Your task to perform on an android device: make emails show in primary in the gmail app Image 0: 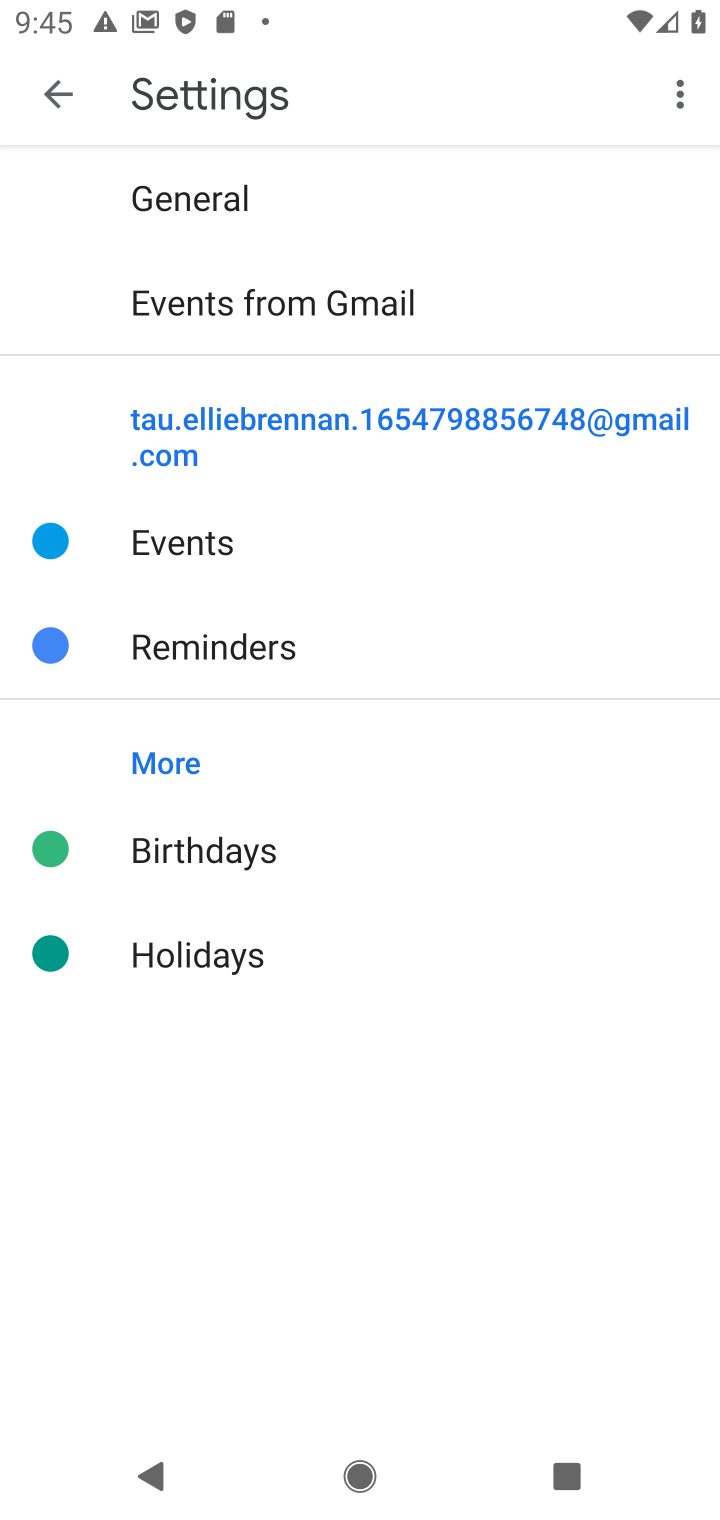
Step 0: press back button
Your task to perform on an android device: make emails show in primary in the gmail app Image 1: 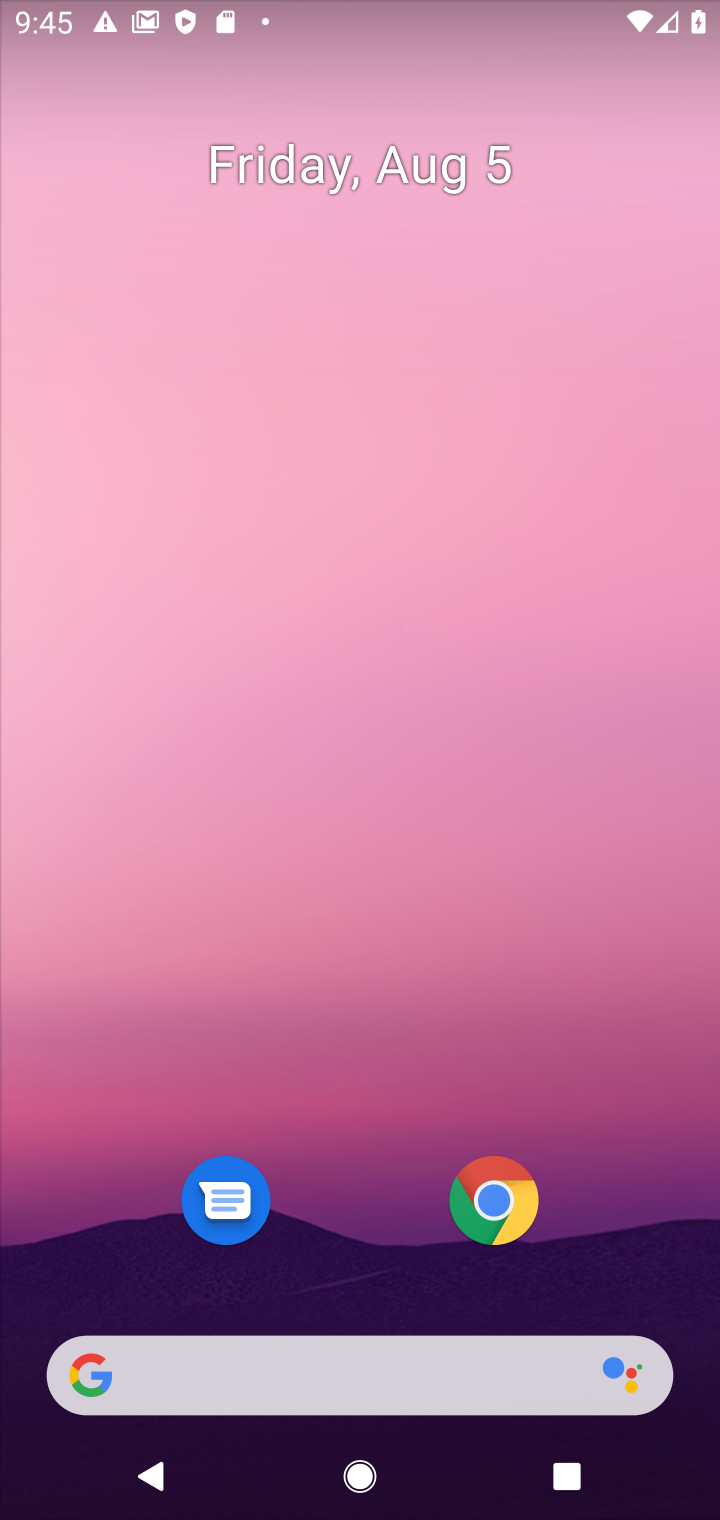
Step 1: drag from (379, 1182) to (362, 12)
Your task to perform on an android device: make emails show in primary in the gmail app Image 2: 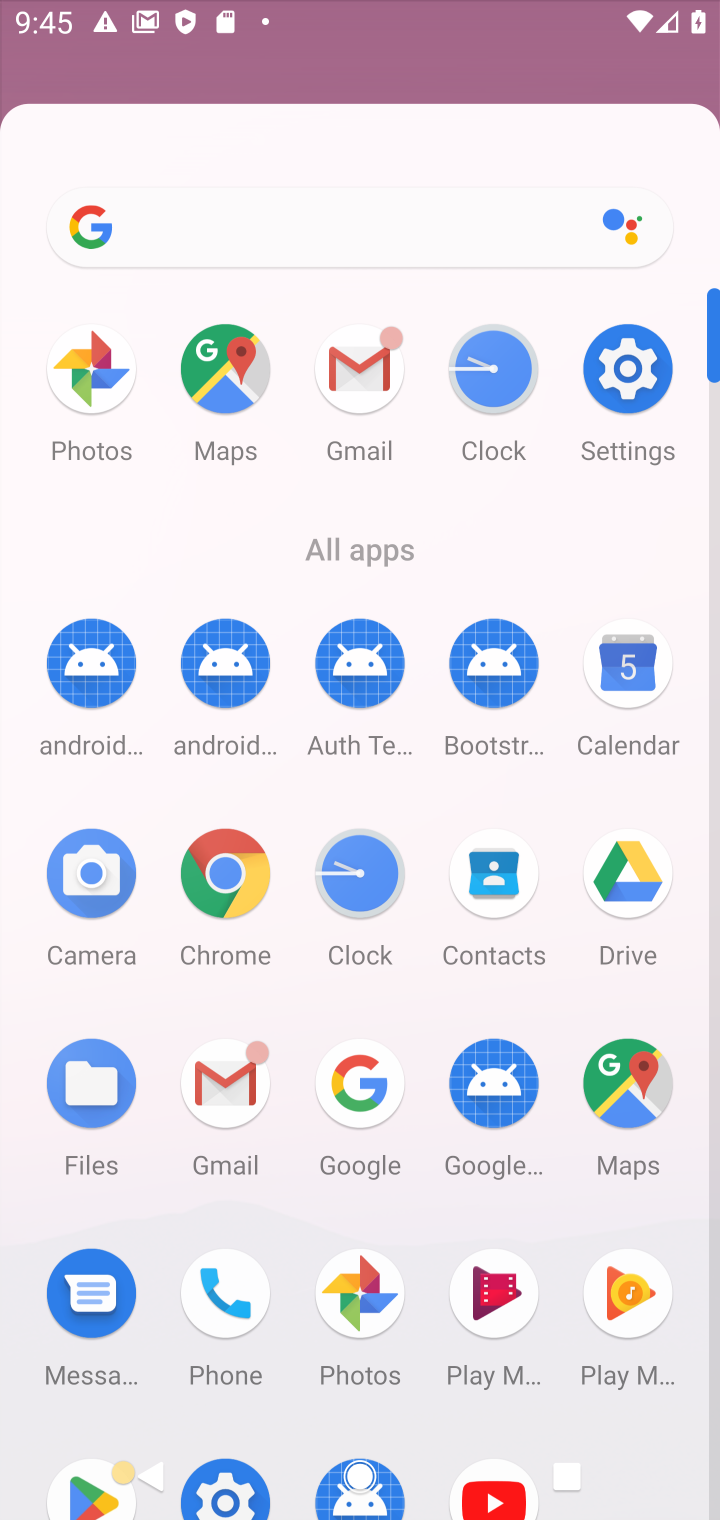
Step 2: click (371, 367)
Your task to perform on an android device: make emails show in primary in the gmail app Image 3: 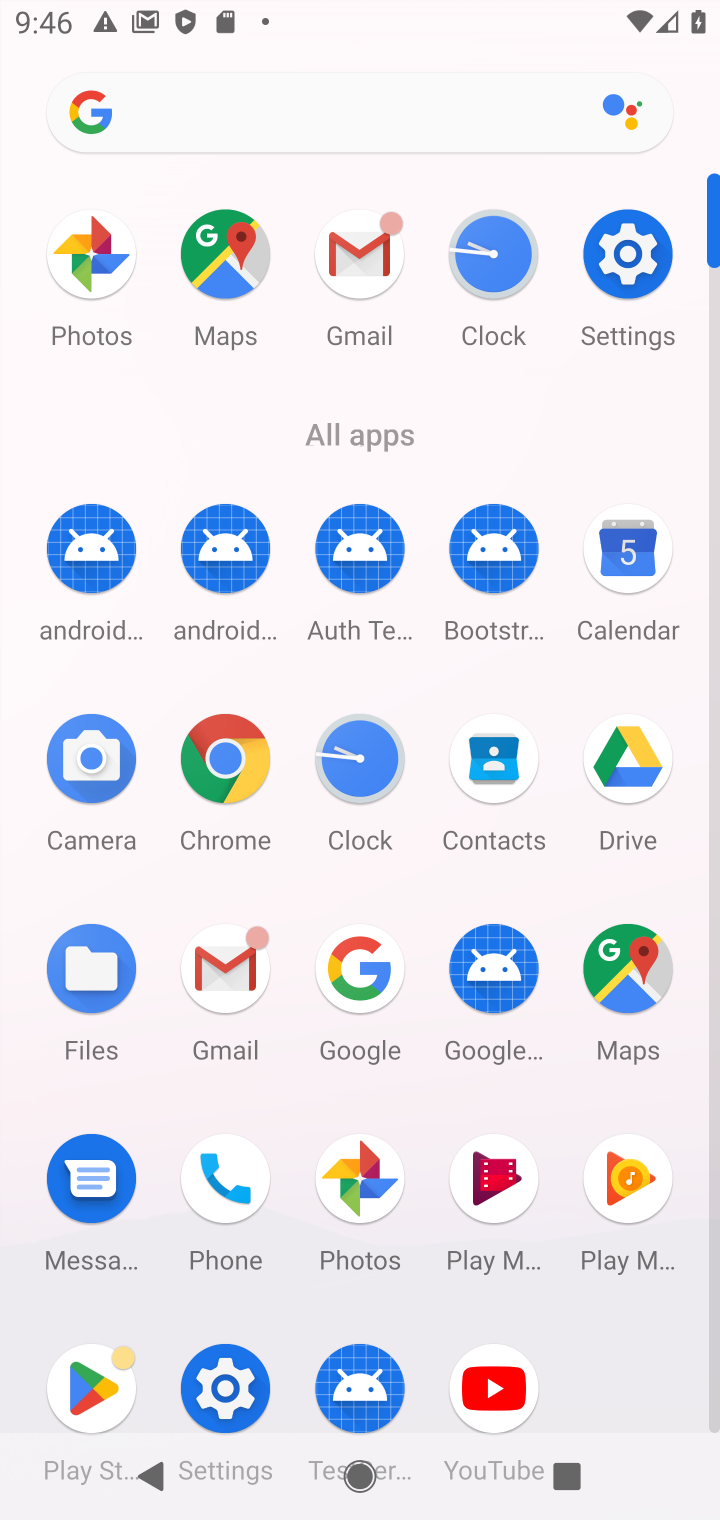
Step 3: click (367, 253)
Your task to perform on an android device: make emails show in primary in the gmail app Image 4: 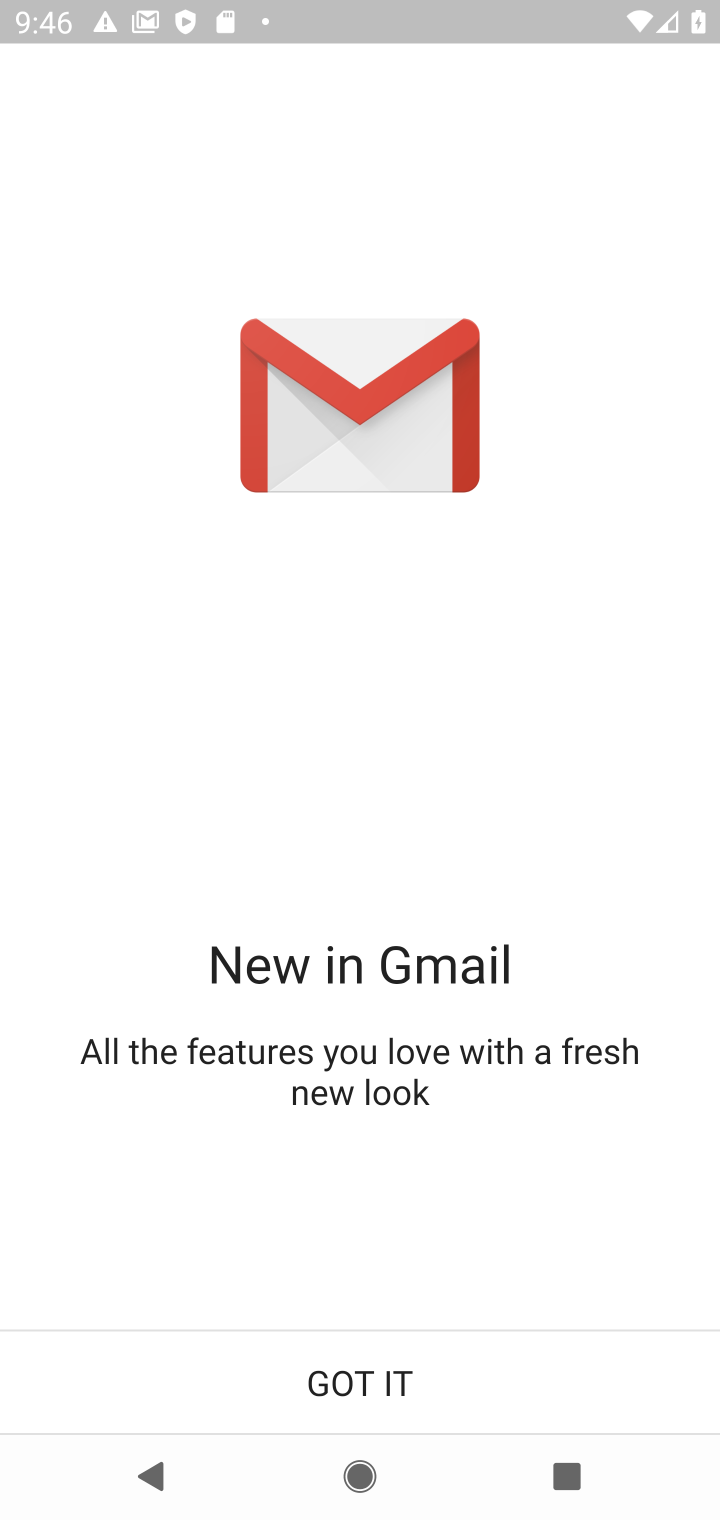
Step 4: click (367, 253)
Your task to perform on an android device: make emails show in primary in the gmail app Image 5: 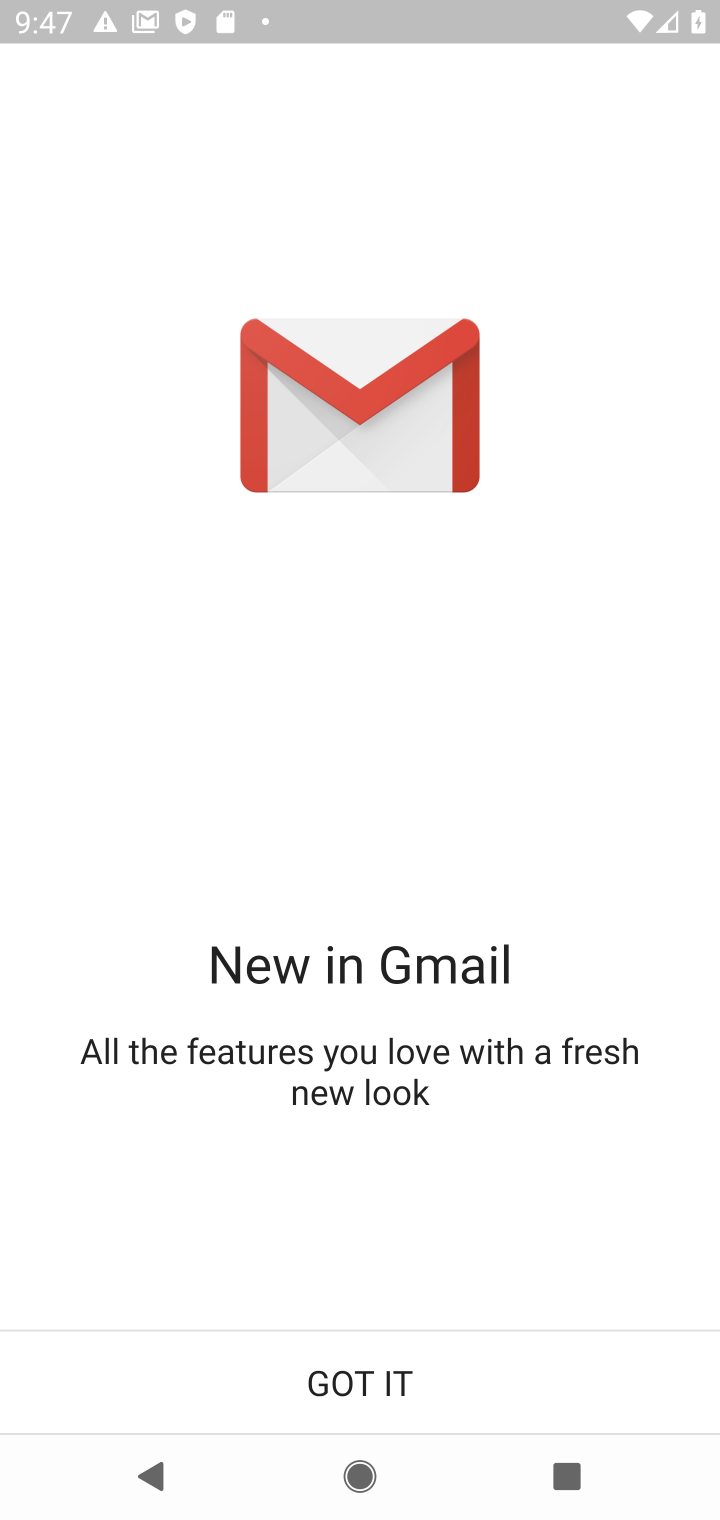
Step 5: click (577, 1406)
Your task to perform on an android device: make emails show in primary in the gmail app Image 6: 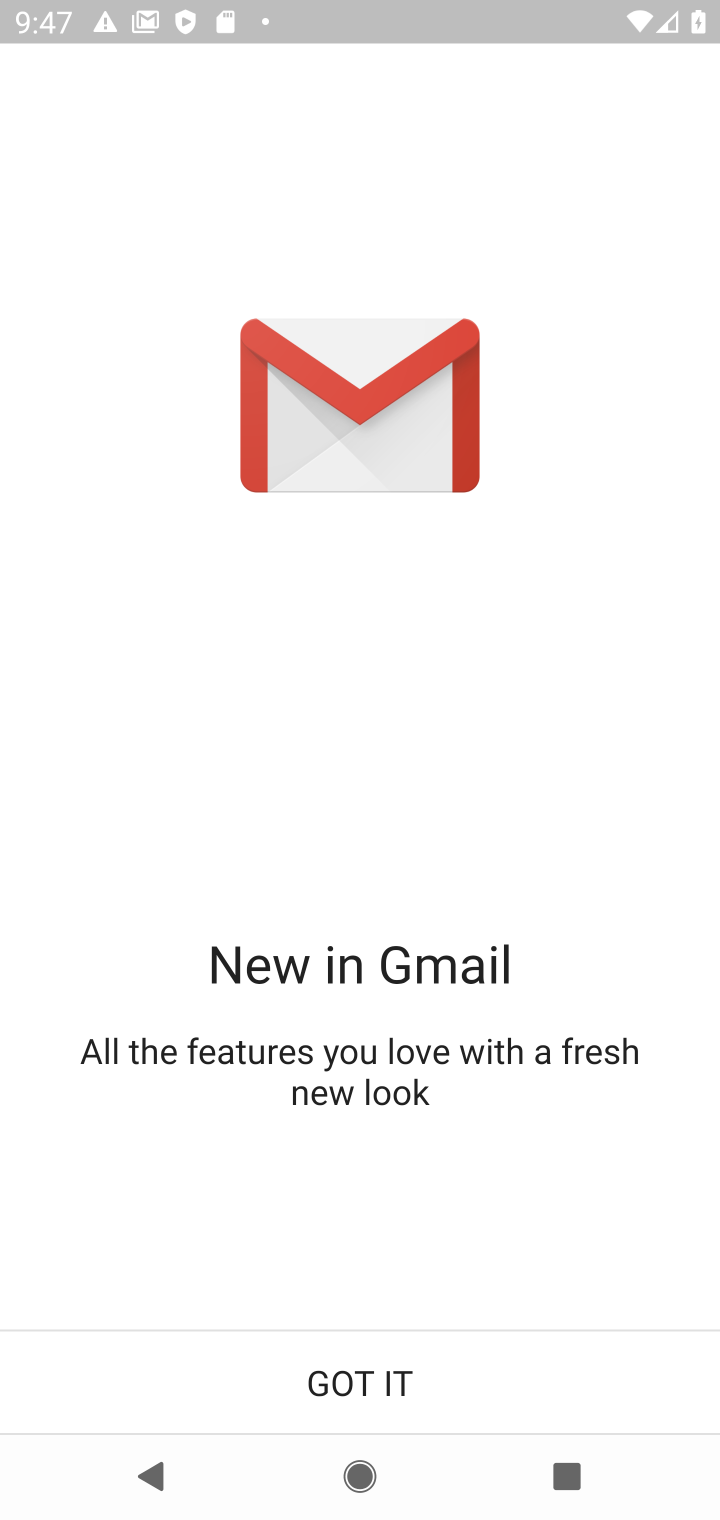
Step 6: click (405, 1378)
Your task to perform on an android device: make emails show in primary in the gmail app Image 7: 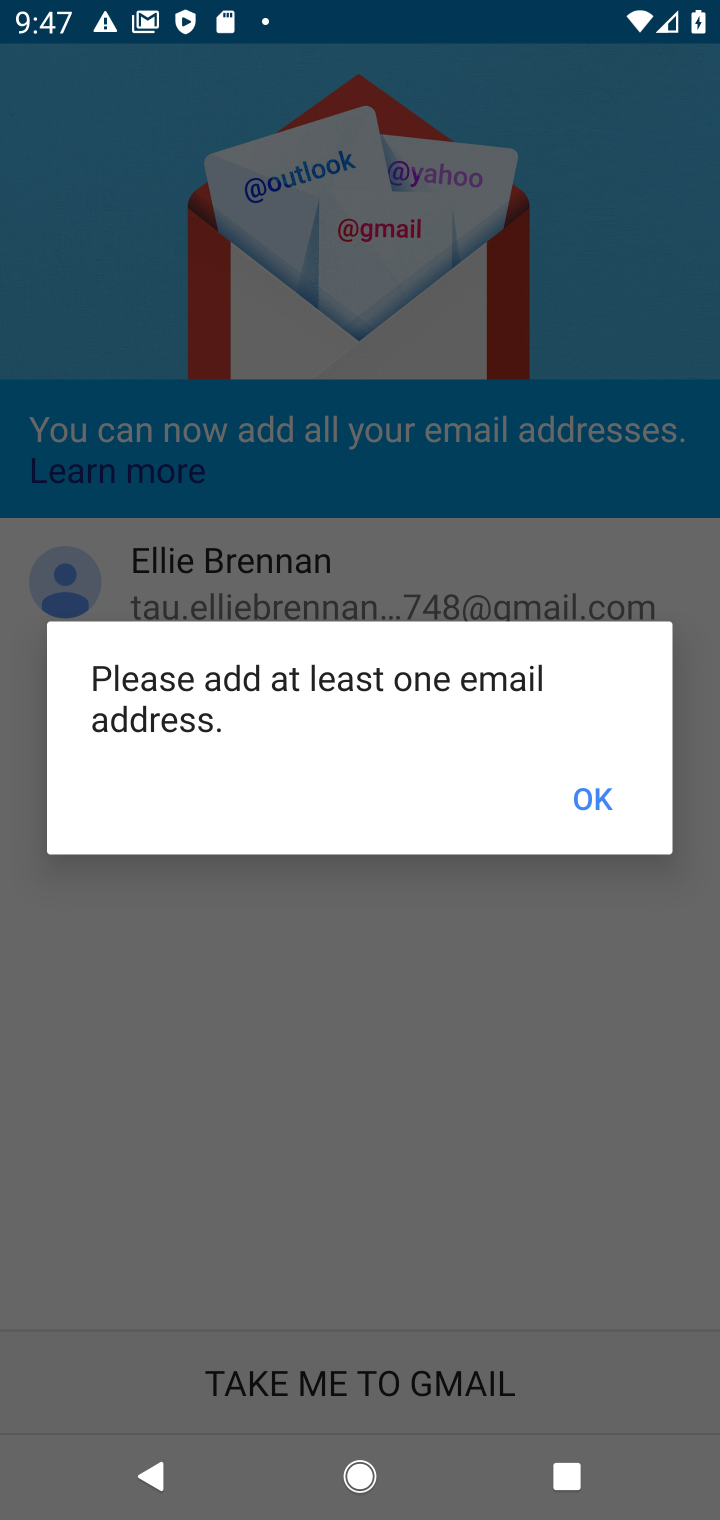
Step 7: click (580, 796)
Your task to perform on an android device: make emails show in primary in the gmail app Image 8: 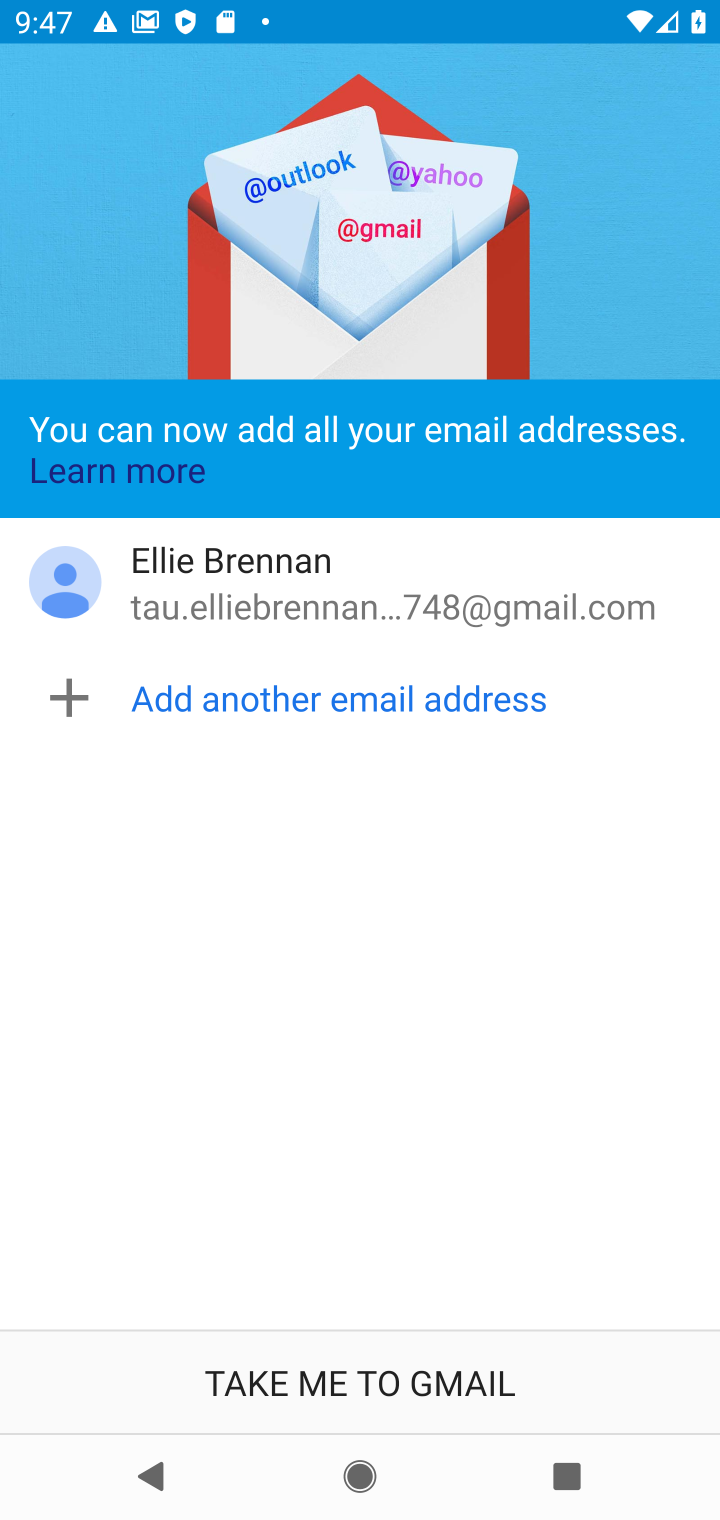
Step 8: click (303, 1360)
Your task to perform on an android device: make emails show in primary in the gmail app Image 9: 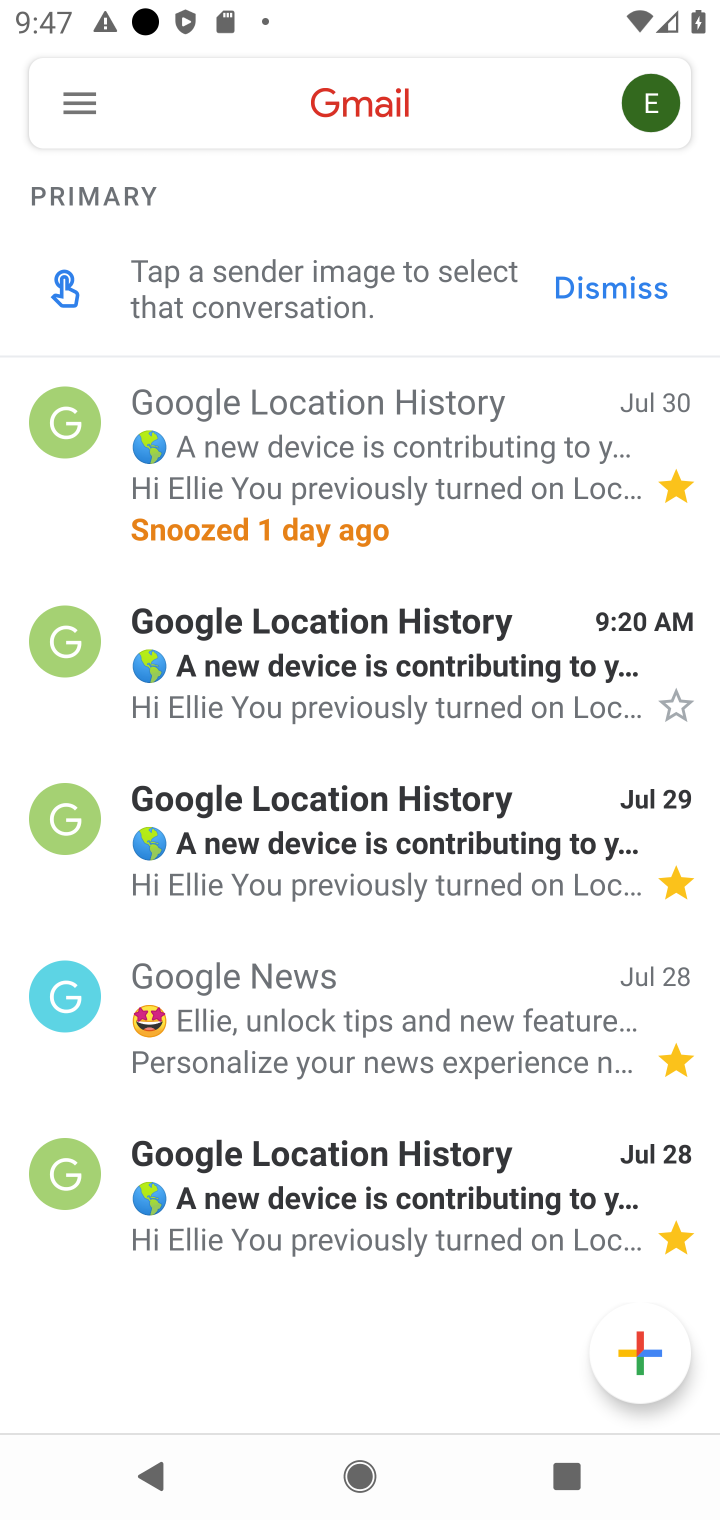
Step 9: click (83, 117)
Your task to perform on an android device: make emails show in primary in the gmail app Image 10: 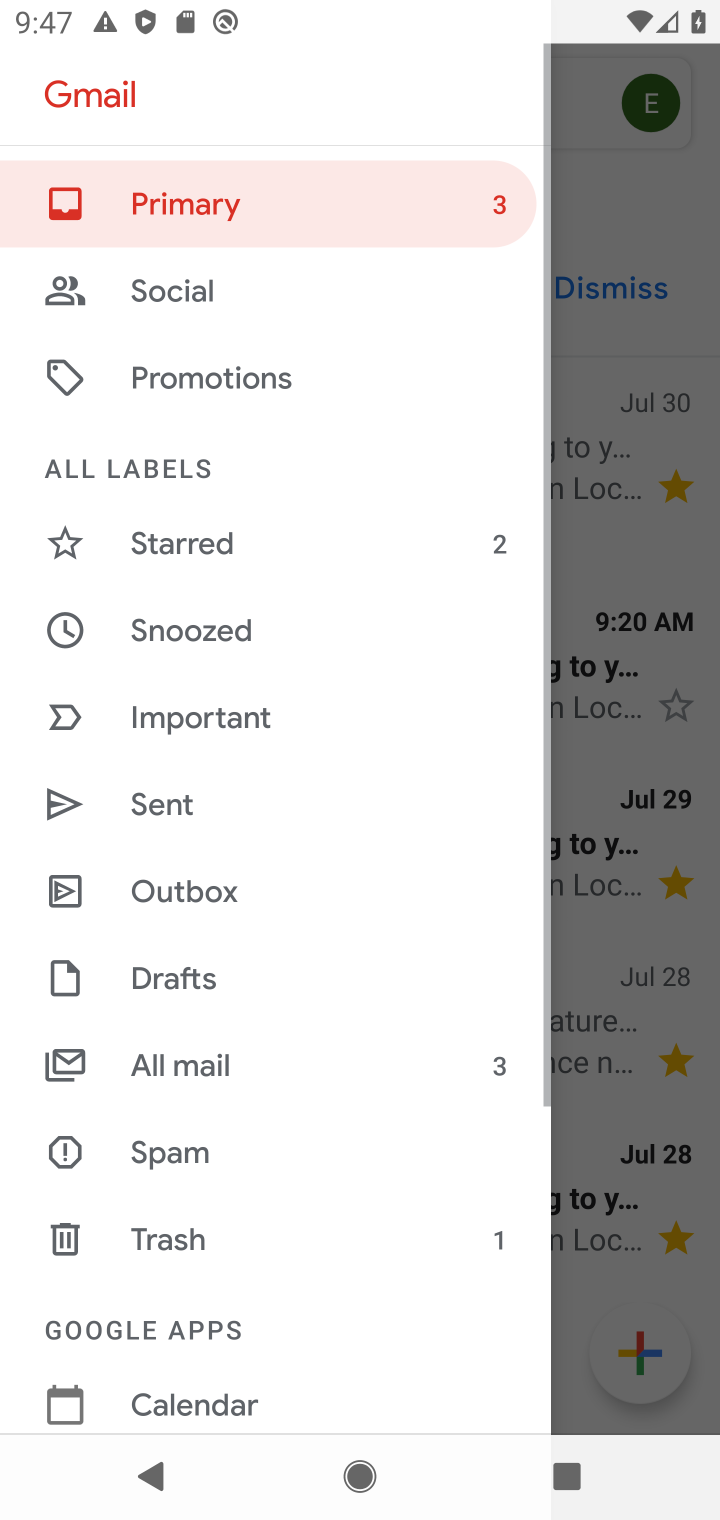
Step 10: drag from (261, 1342) to (432, 52)
Your task to perform on an android device: make emails show in primary in the gmail app Image 11: 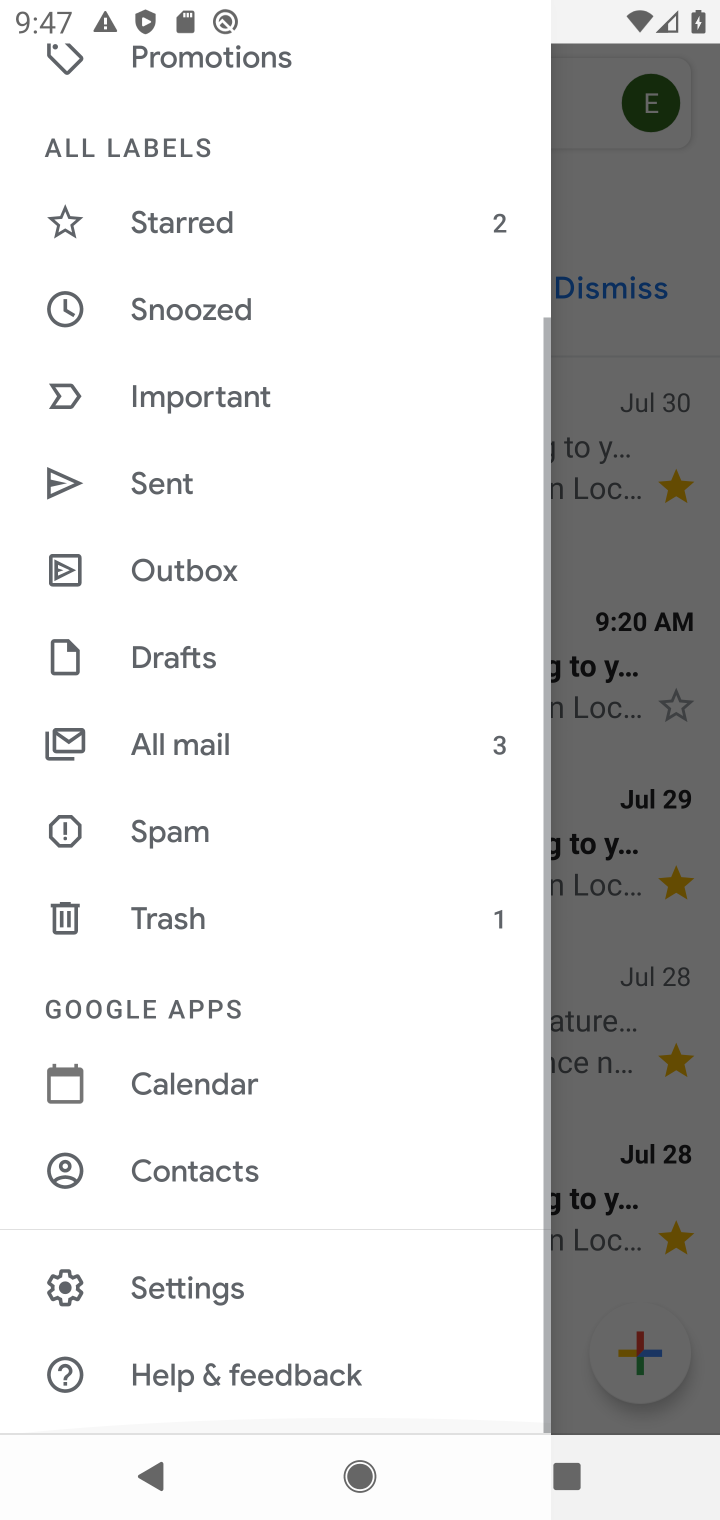
Step 11: click (209, 1290)
Your task to perform on an android device: make emails show in primary in the gmail app Image 12: 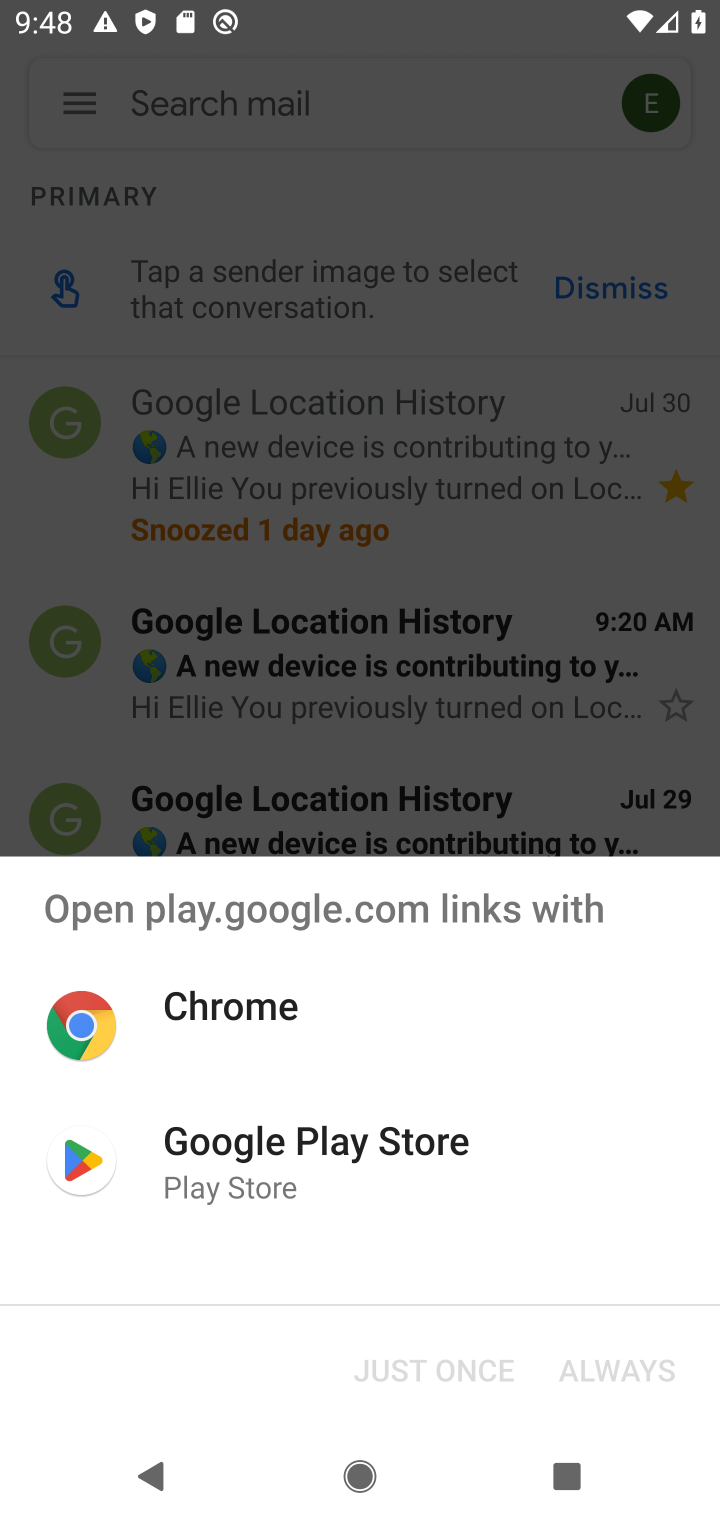
Step 12: click (94, 99)
Your task to perform on an android device: make emails show in primary in the gmail app Image 13: 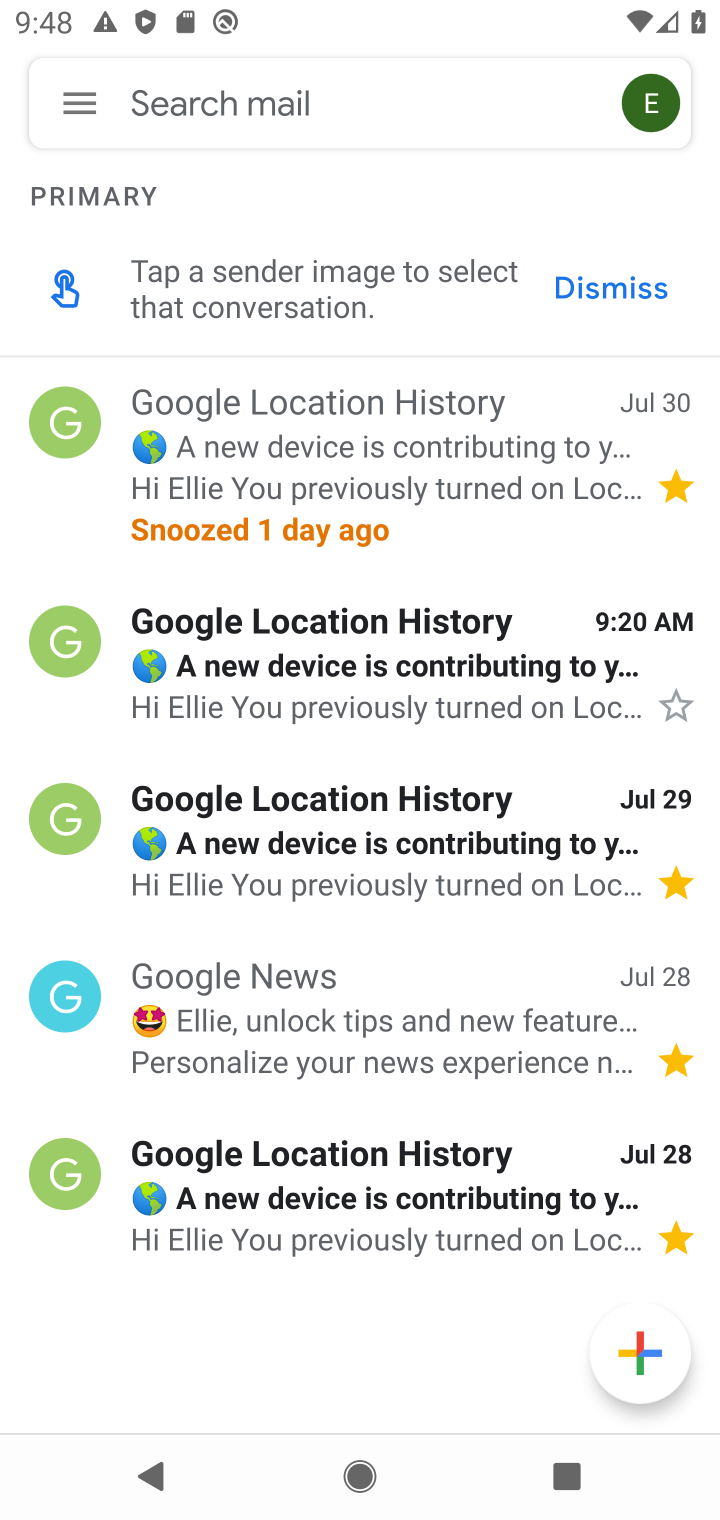
Step 13: click (94, 99)
Your task to perform on an android device: make emails show in primary in the gmail app Image 14: 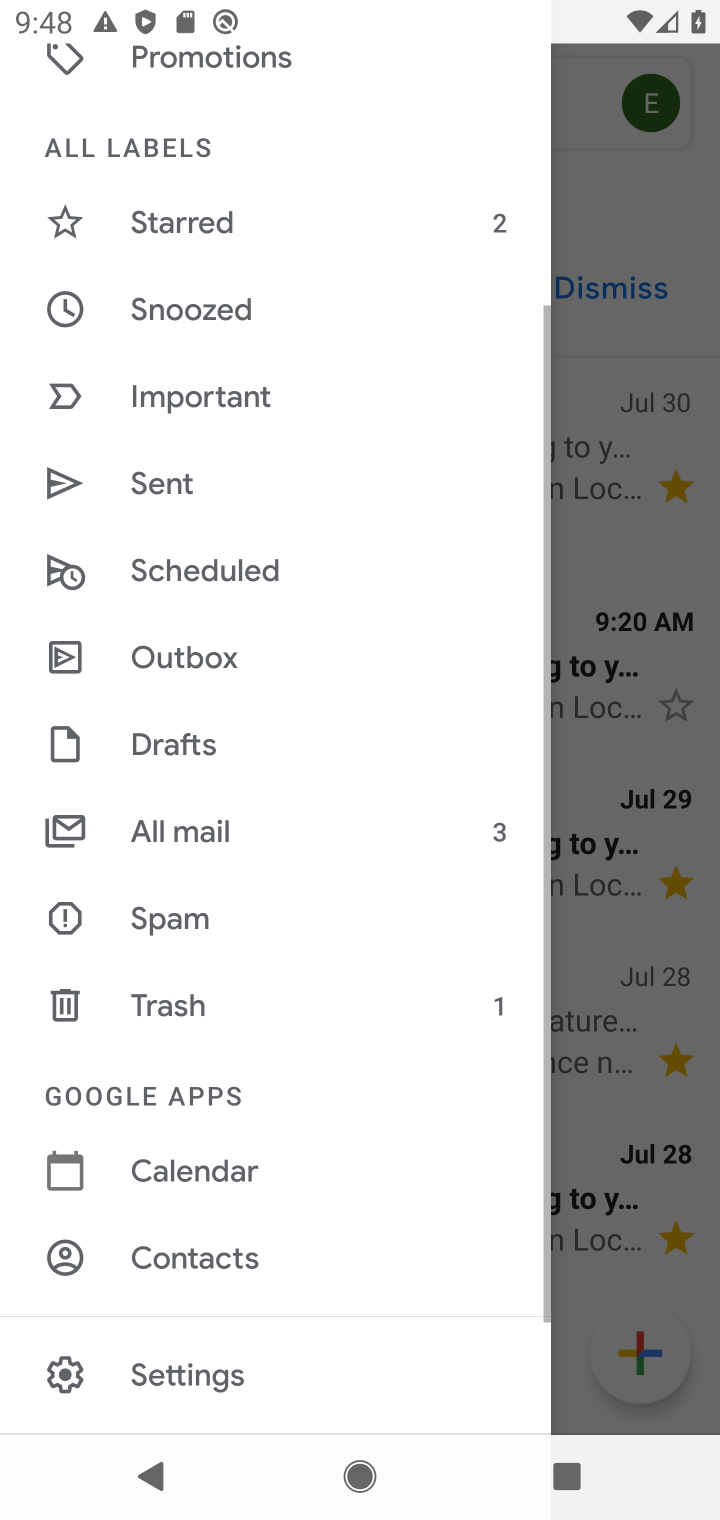
Step 14: click (188, 1376)
Your task to perform on an android device: make emails show in primary in the gmail app Image 15: 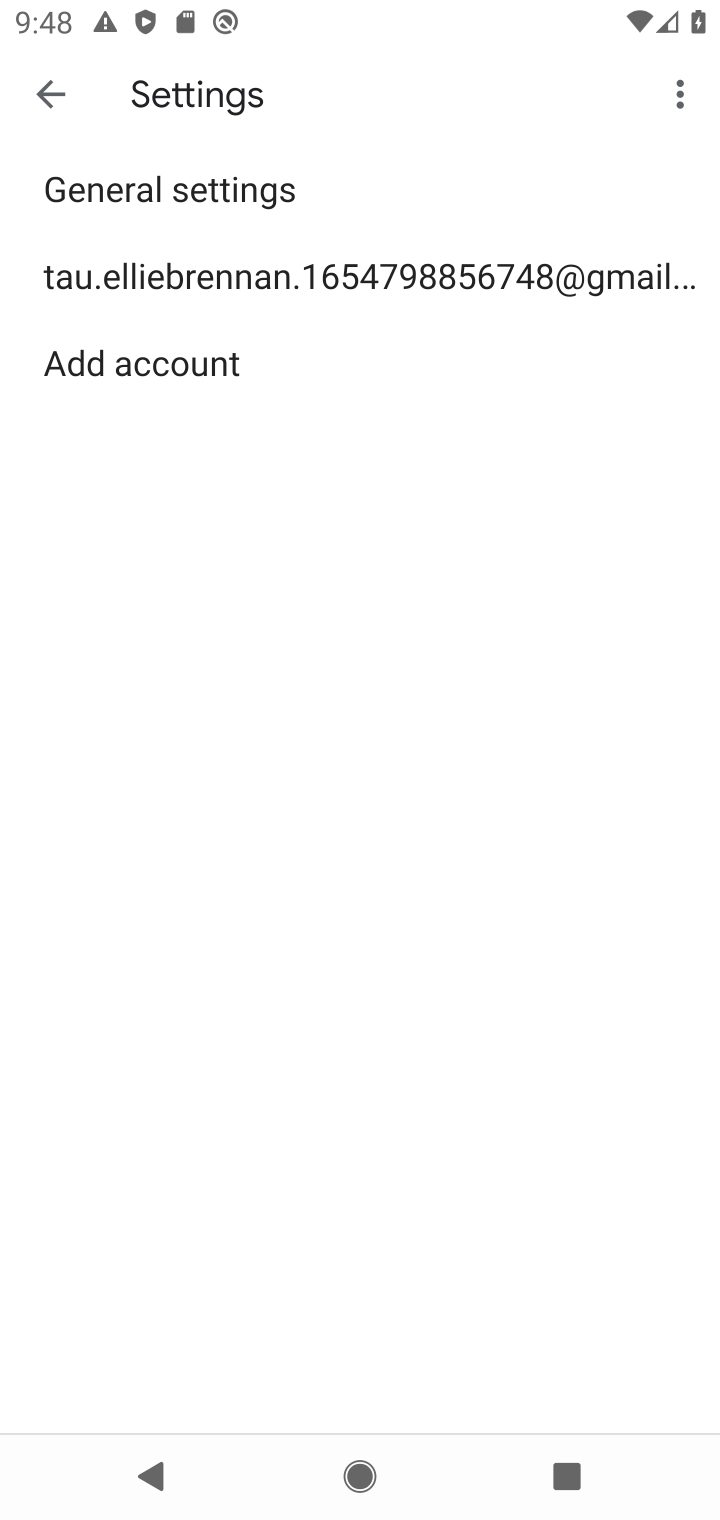
Step 15: click (252, 274)
Your task to perform on an android device: make emails show in primary in the gmail app Image 16: 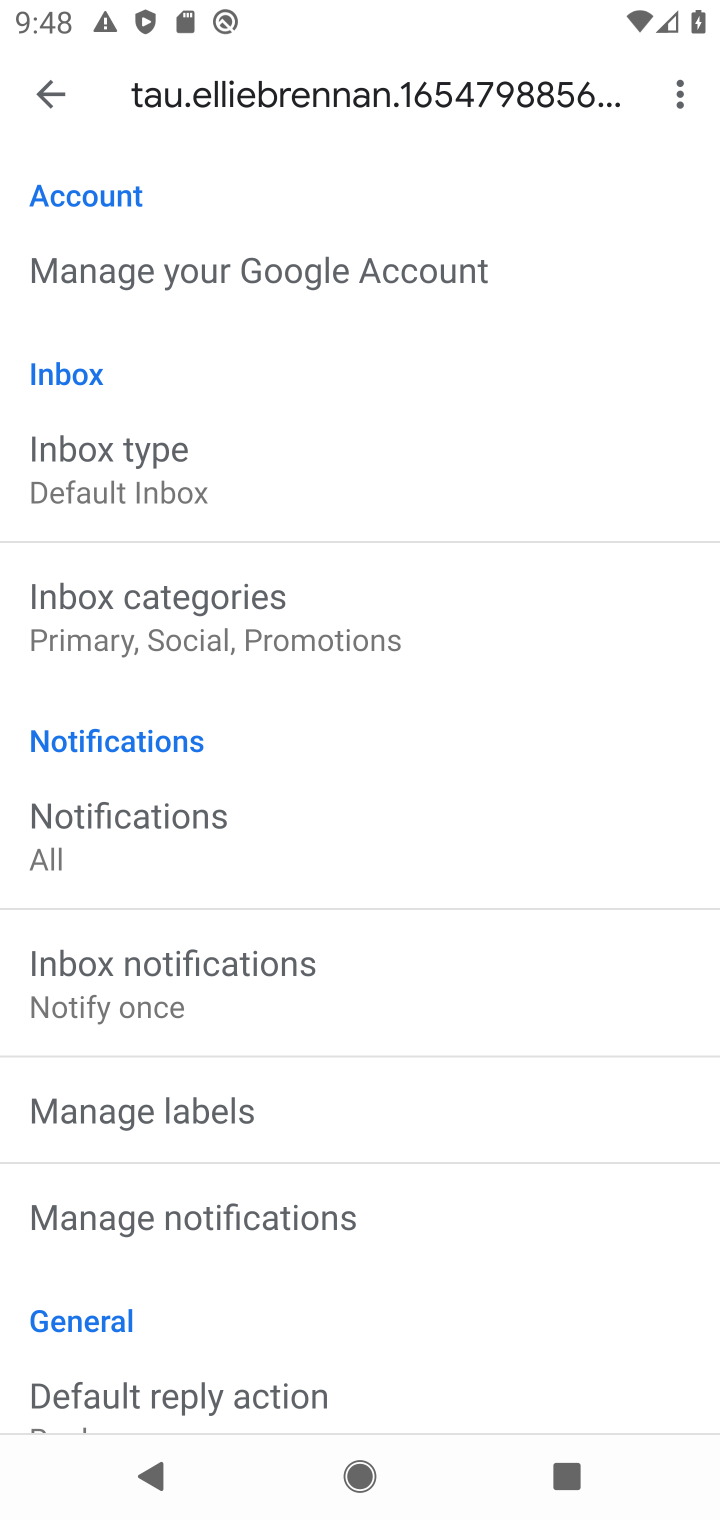
Step 16: click (209, 629)
Your task to perform on an android device: make emails show in primary in the gmail app Image 17: 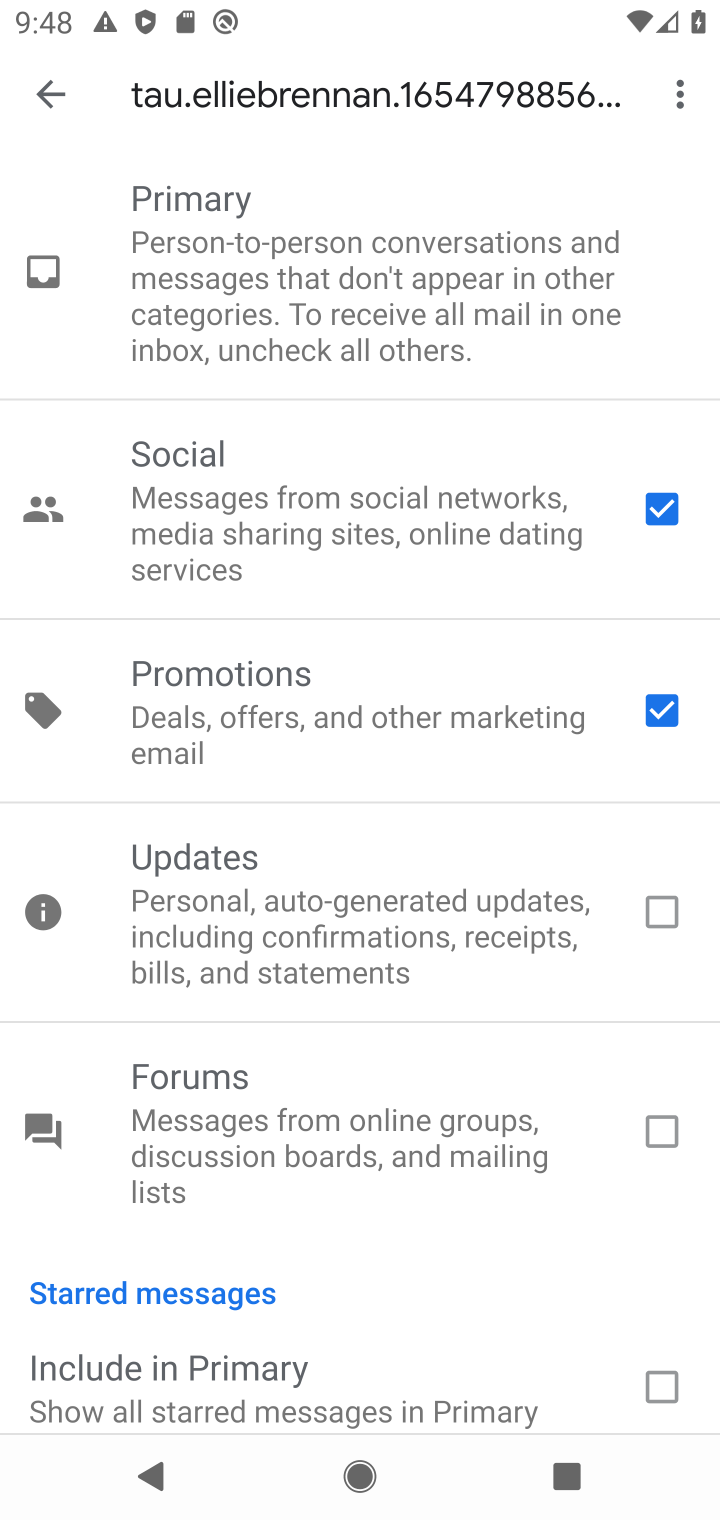
Step 17: click (670, 1390)
Your task to perform on an android device: make emails show in primary in the gmail app Image 18: 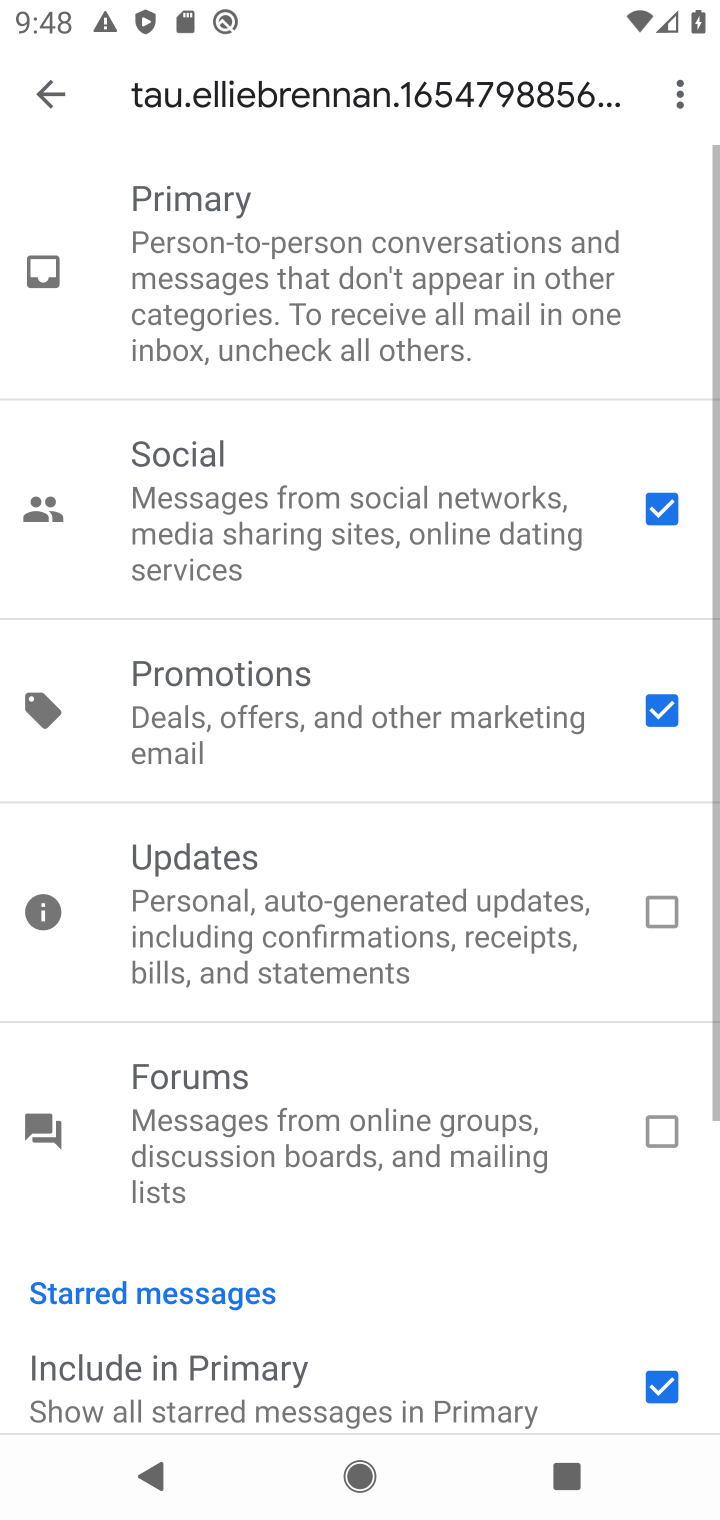
Step 18: task complete